Your task to perform on an android device: Go to display settings Image 0: 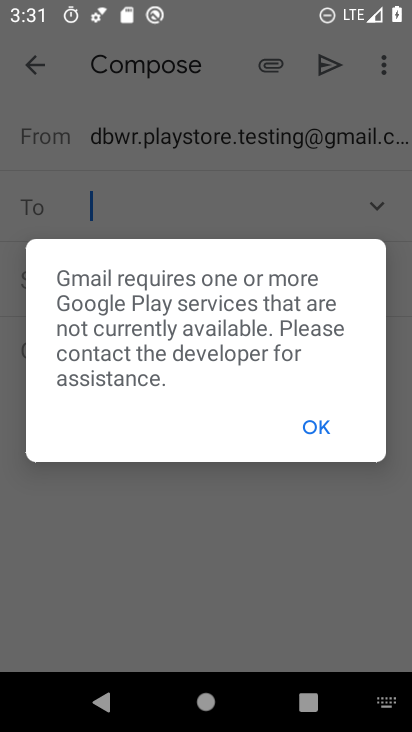
Step 0: press home button
Your task to perform on an android device: Go to display settings Image 1: 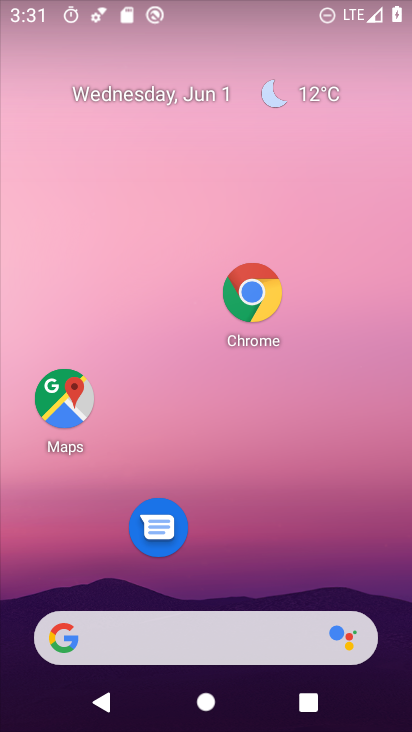
Step 1: drag from (237, 499) to (245, 173)
Your task to perform on an android device: Go to display settings Image 2: 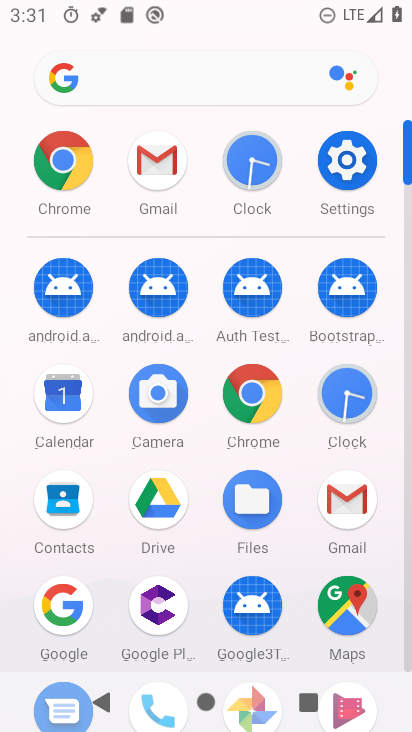
Step 2: click (373, 144)
Your task to perform on an android device: Go to display settings Image 3: 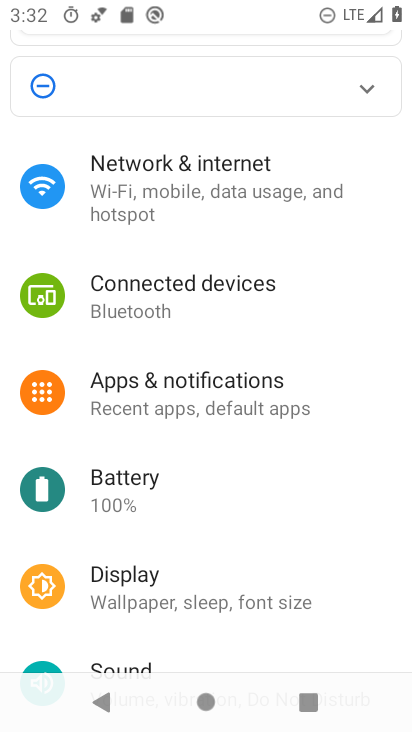
Step 3: drag from (155, 564) to (225, 285)
Your task to perform on an android device: Go to display settings Image 4: 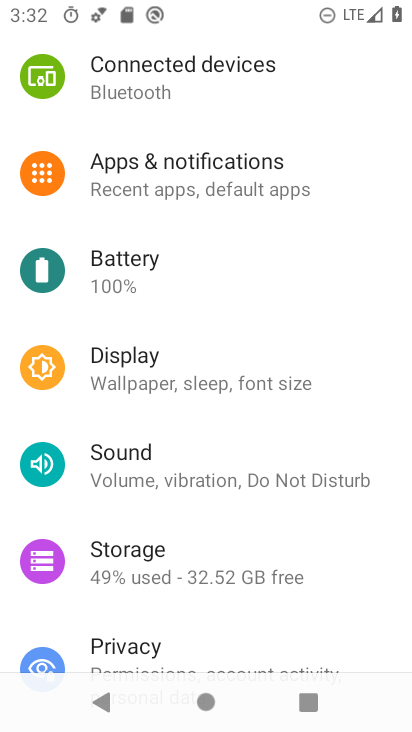
Step 4: click (176, 377)
Your task to perform on an android device: Go to display settings Image 5: 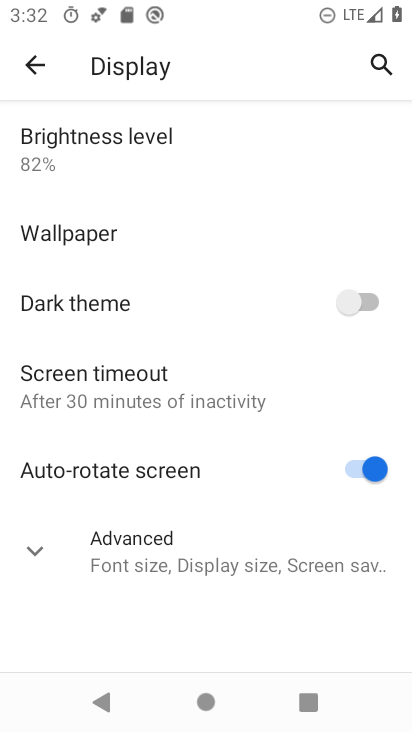
Step 5: task complete